Your task to perform on an android device: uninstall "Gmail" Image 0: 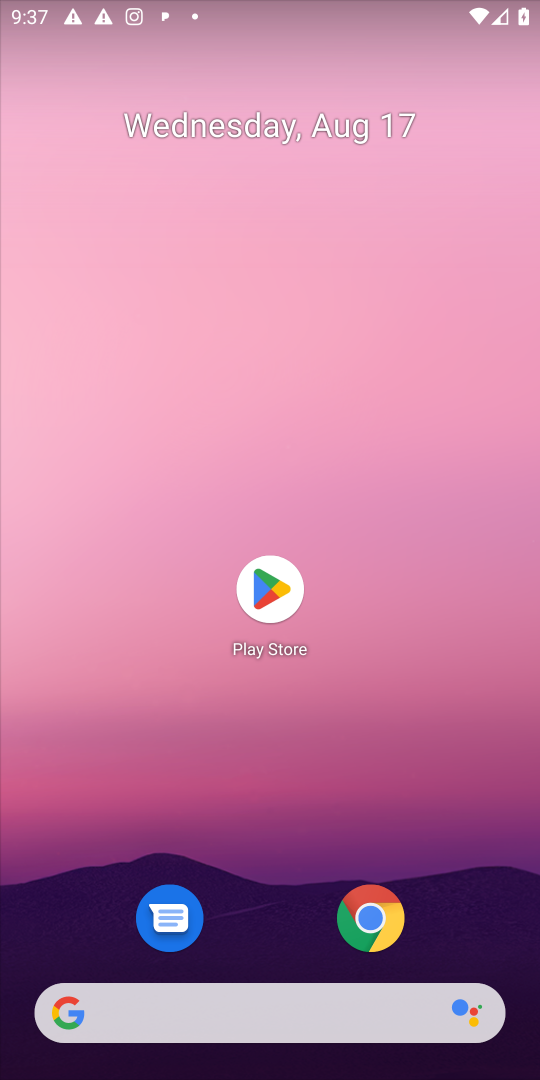
Step 0: click (264, 592)
Your task to perform on an android device: uninstall "Gmail" Image 1: 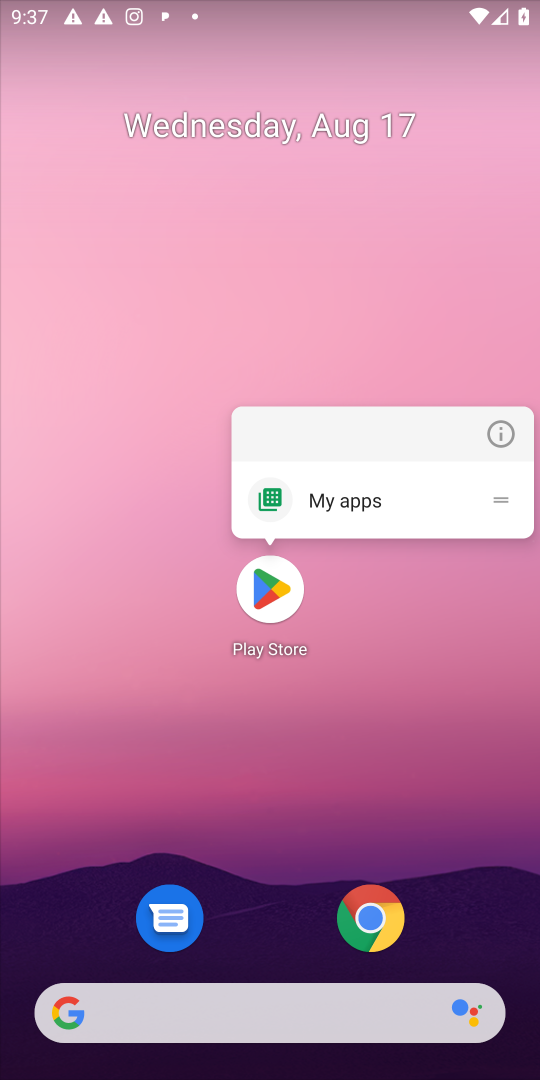
Step 1: click (264, 599)
Your task to perform on an android device: uninstall "Gmail" Image 2: 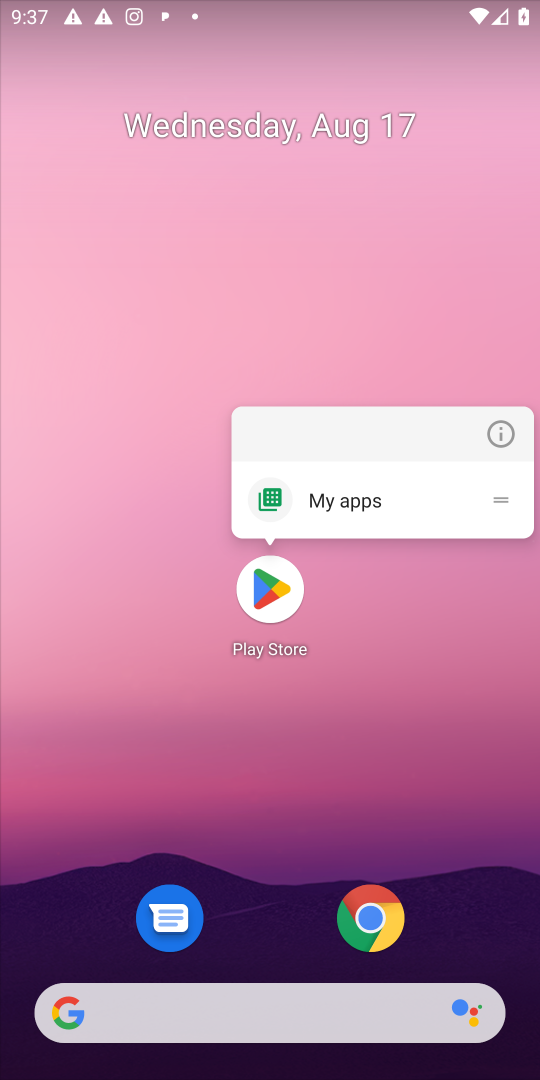
Step 2: click (264, 599)
Your task to perform on an android device: uninstall "Gmail" Image 3: 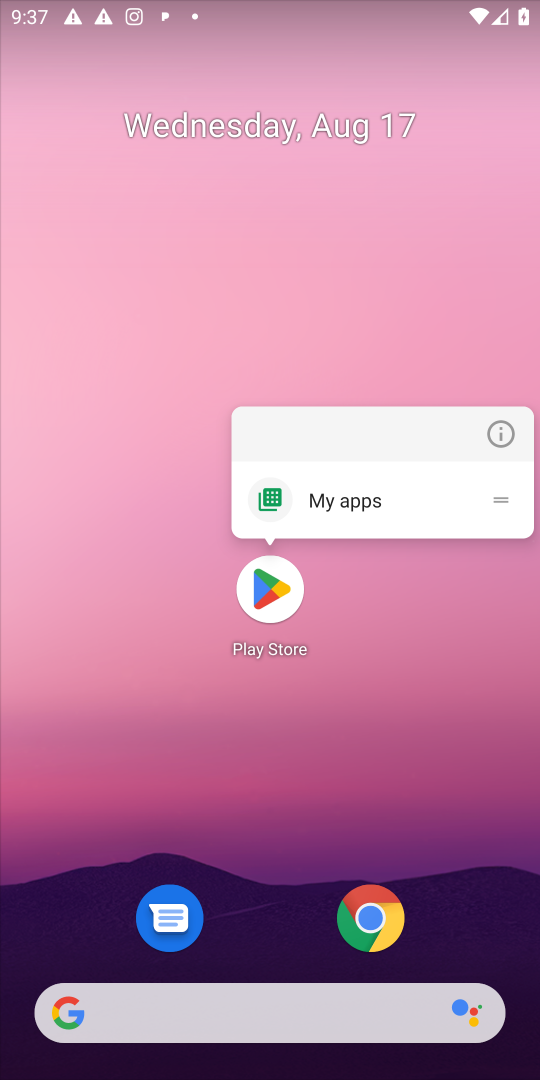
Step 3: click (264, 598)
Your task to perform on an android device: uninstall "Gmail" Image 4: 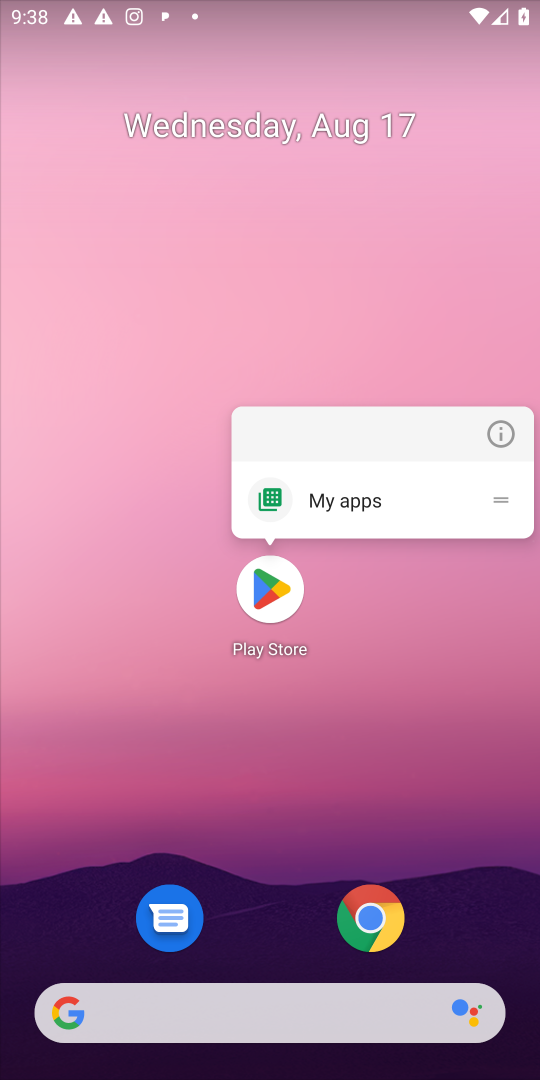
Step 4: click (264, 603)
Your task to perform on an android device: uninstall "Gmail" Image 5: 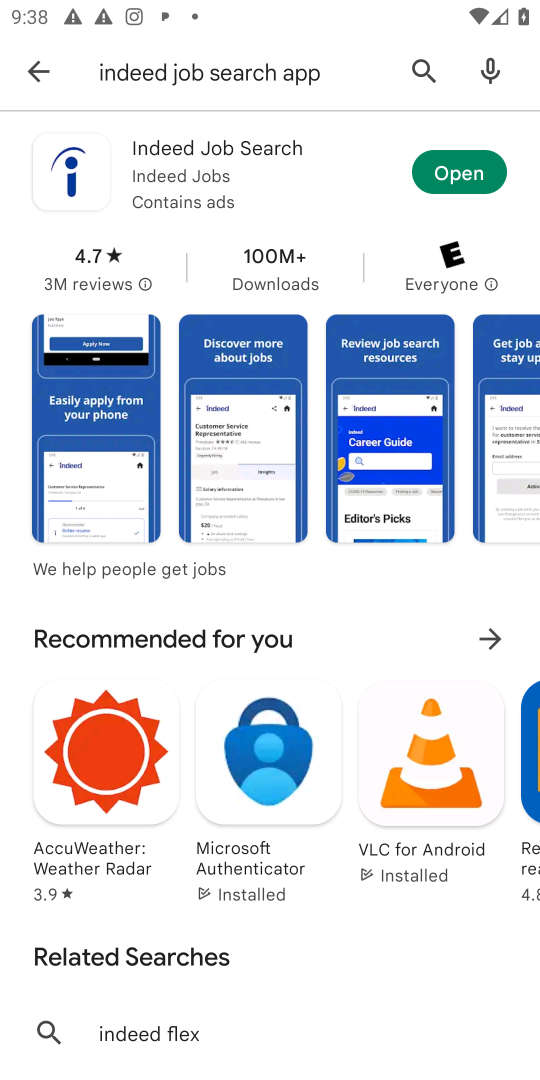
Step 5: click (419, 77)
Your task to perform on an android device: uninstall "Gmail" Image 6: 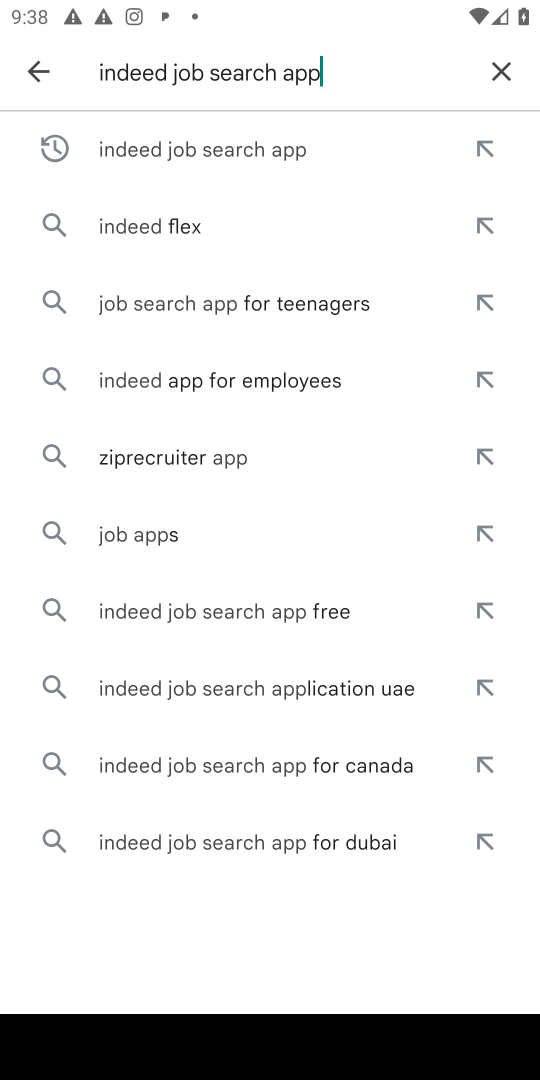
Step 6: click (496, 67)
Your task to perform on an android device: uninstall "Gmail" Image 7: 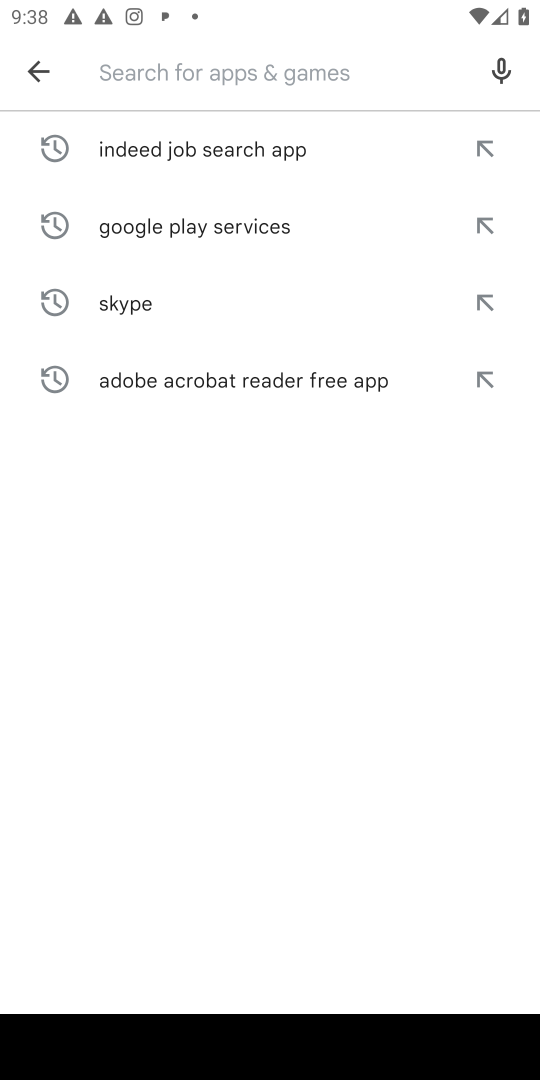
Step 7: type "Gmail"
Your task to perform on an android device: uninstall "Gmail" Image 8: 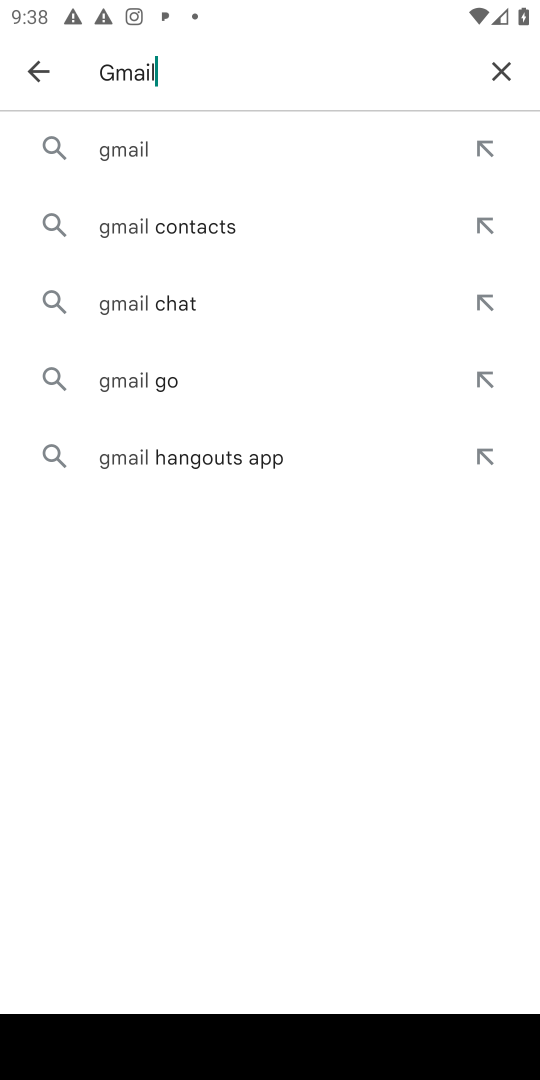
Step 8: click (138, 153)
Your task to perform on an android device: uninstall "Gmail" Image 9: 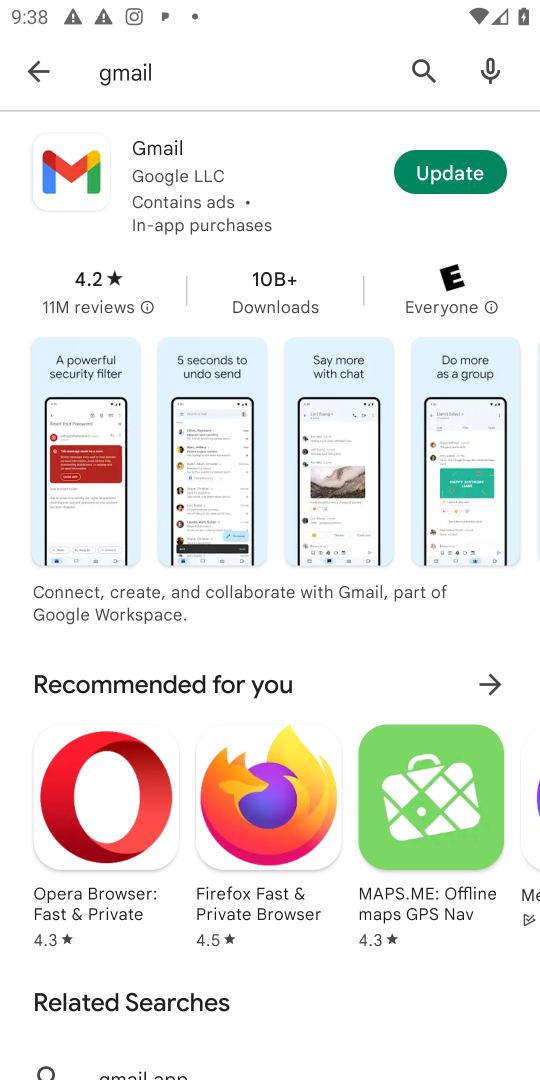
Step 9: click (194, 206)
Your task to perform on an android device: uninstall "Gmail" Image 10: 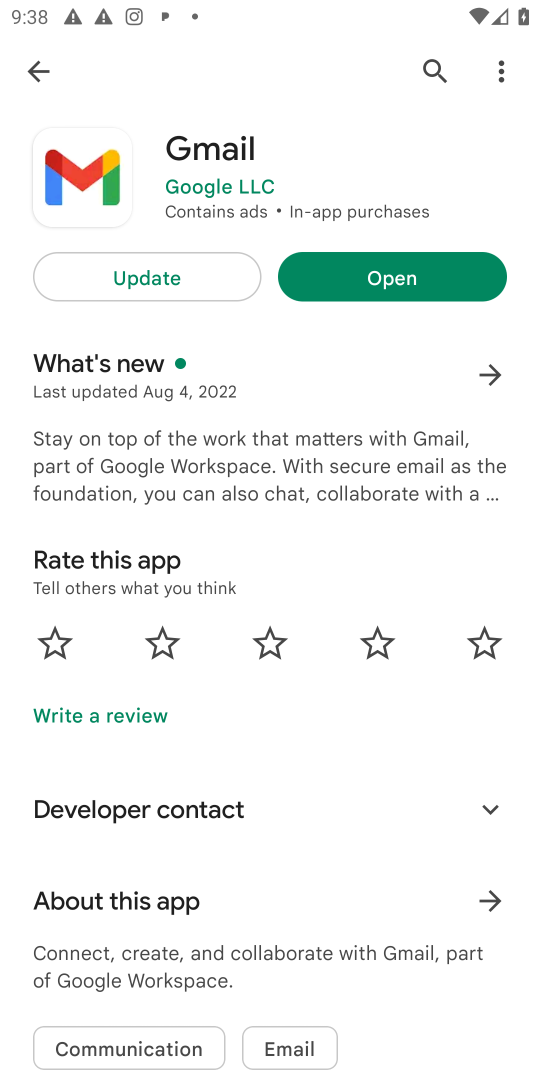
Step 10: task complete